Your task to perform on an android device: Go to internet settings Image 0: 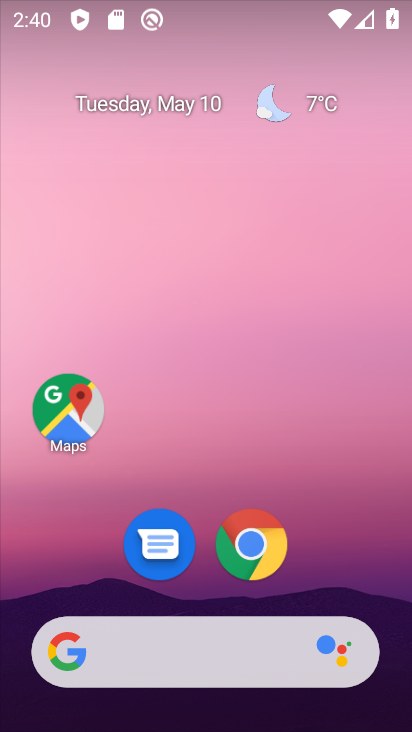
Step 0: drag from (387, 168) to (378, 130)
Your task to perform on an android device: Go to internet settings Image 1: 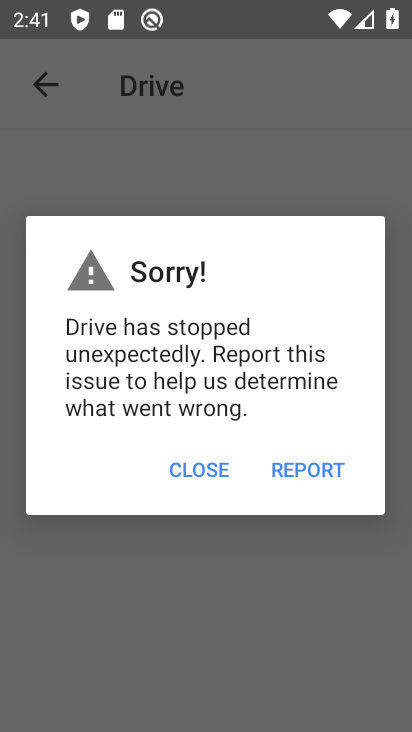
Step 1: press home button
Your task to perform on an android device: Go to internet settings Image 2: 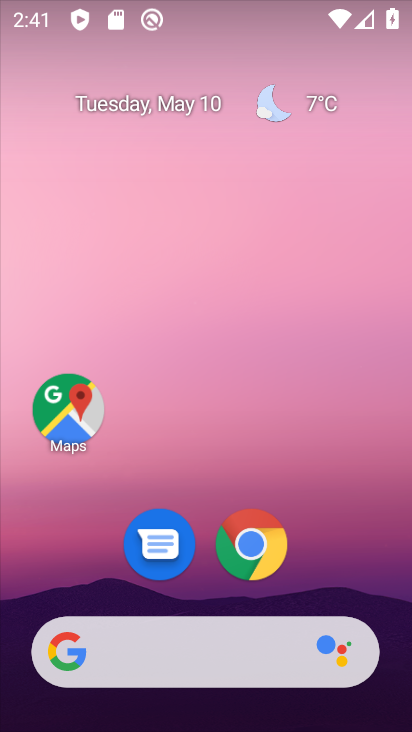
Step 2: drag from (321, 570) to (318, 260)
Your task to perform on an android device: Go to internet settings Image 3: 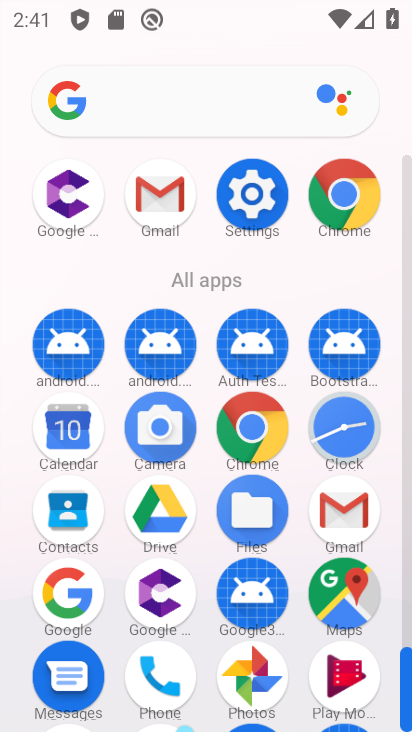
Step 3: click (252, 196)
Your task to perform on an android device: Go to internet settings Image 4: 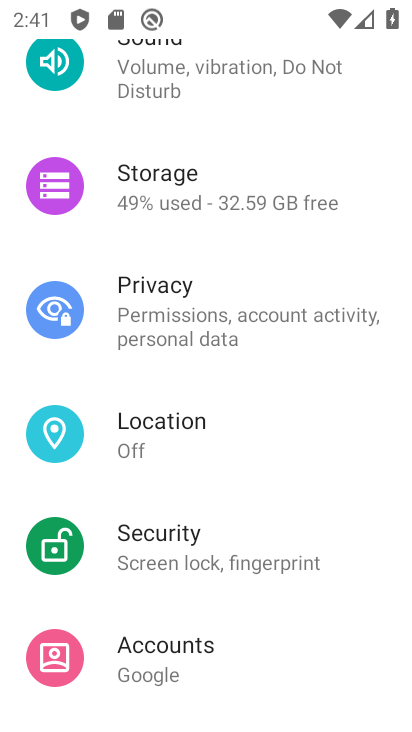
Step 4: drag from (254, 215) to (241, 560)
Your task to perform on an android device: Go to internet settings Image 5: 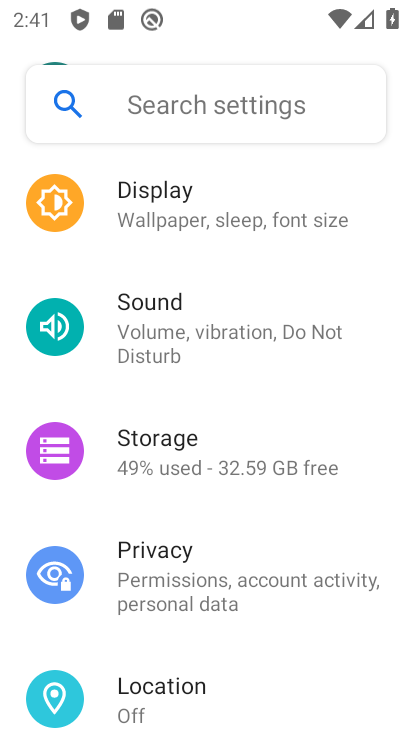
Step 5: drag from (189, 272) to (239, 598)
Your task to perform on an android device: Go to internet settings Image 6: 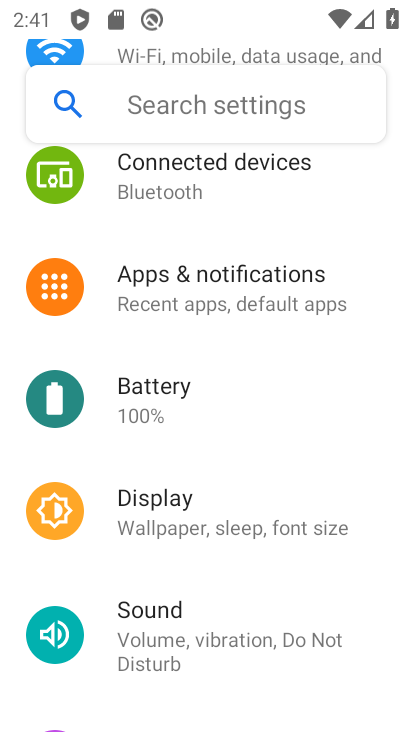
Step 6: drag from (194, 331) to (217, 583)
Your task to perform on an android device: Go to internet settings Image 7: 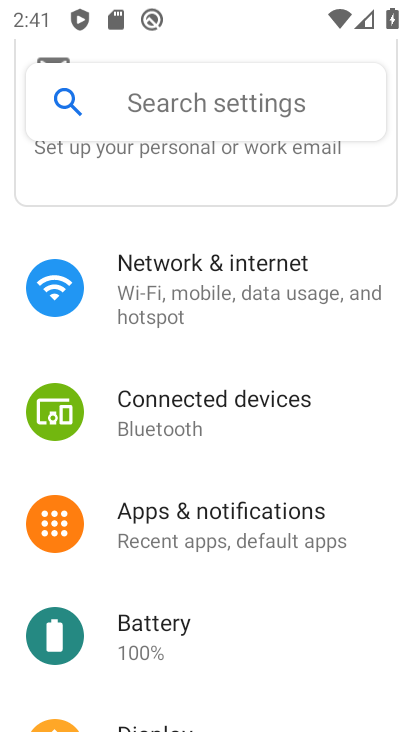
Step 7: click (201, 307)
Your task to perform on an android device: Go to internet settings Image 8: 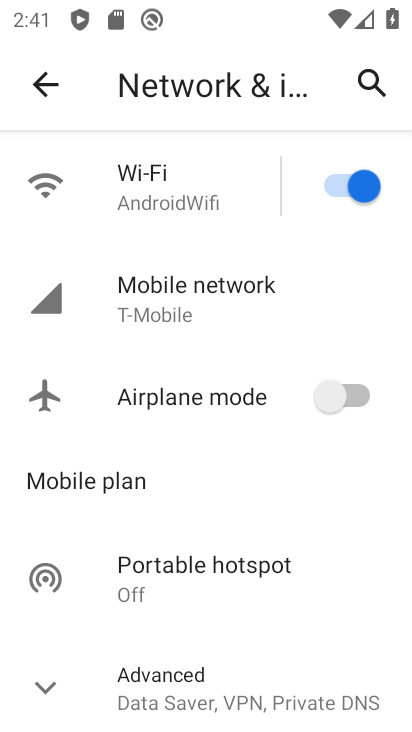
Step 8: task complete